Your task to perform on an android device: Open sound settings Image 0: 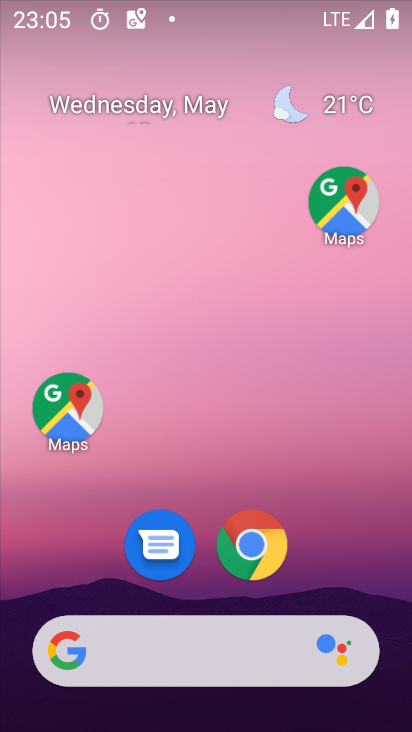
Step 0: drag from (339, 600) to (293, 0)
Your task to perform on an android device: Open sound settings Image 1: 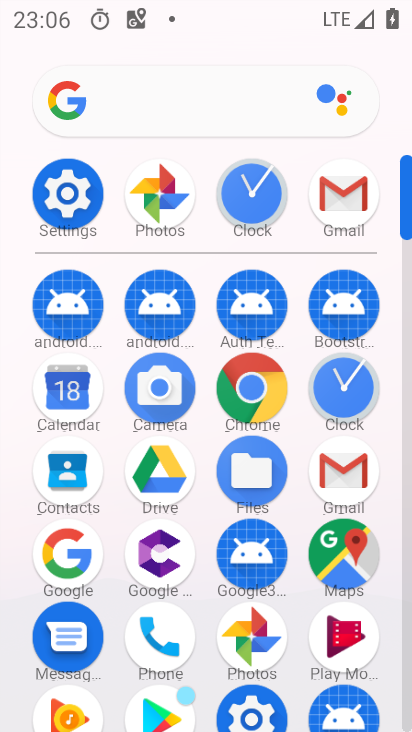
Step 1: click (75, 197)
Your task to perform on an android device: Open sound settings Image 2: 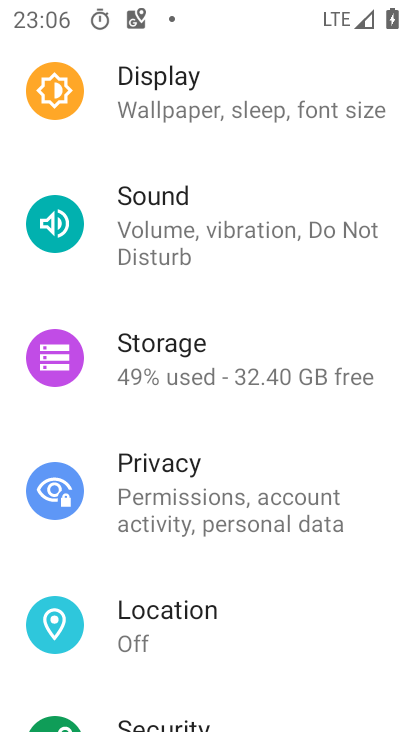
Step 2: click (239, 230)
Your task to perform on an android device: Open sound settings Image 3: 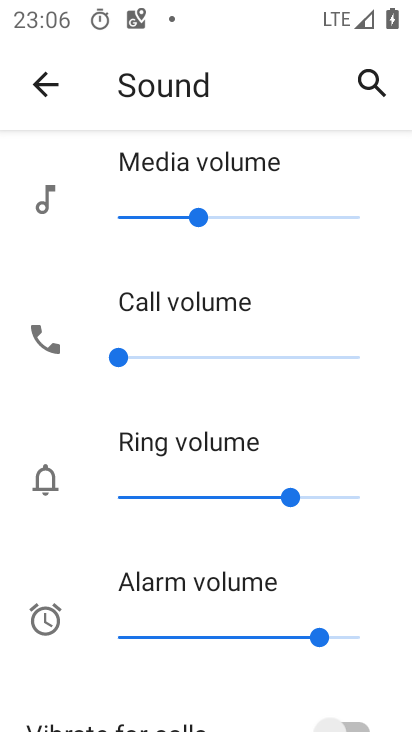
Step 3: task complete